Your task to perform on an android device: open chrome privacy settings Image 0: 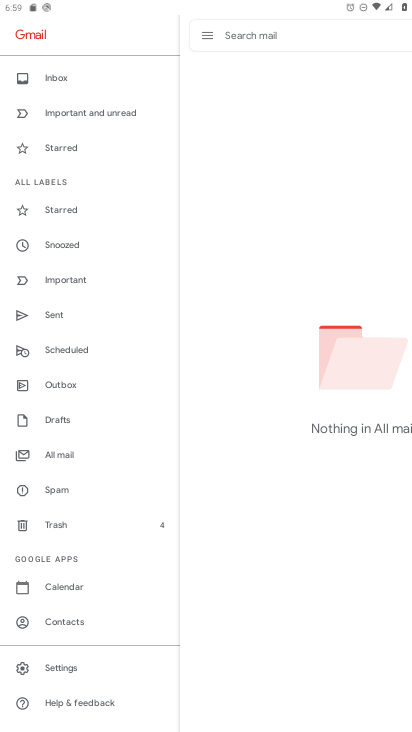
Step 0: press home button
Your task to perform on an android device: open chrome privacy settings Image 1: 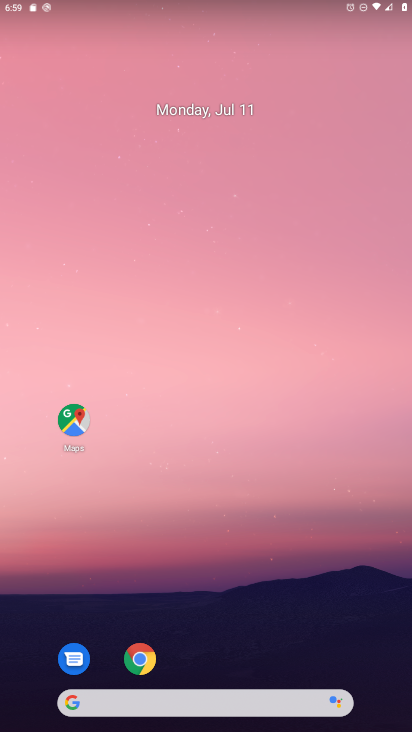
Step 1: click (141, 659)
Your task to perform on an android device: open chrome privacy settings Image 2: 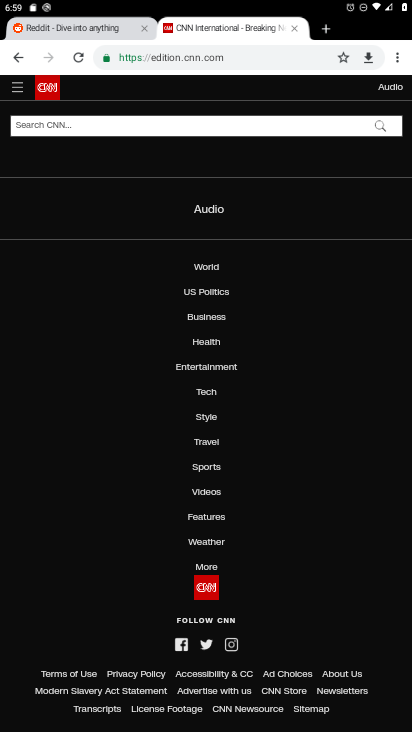
Step 2: click (398, 60)
Your task to perform on an android device: open chrome privacy settings Image 3: 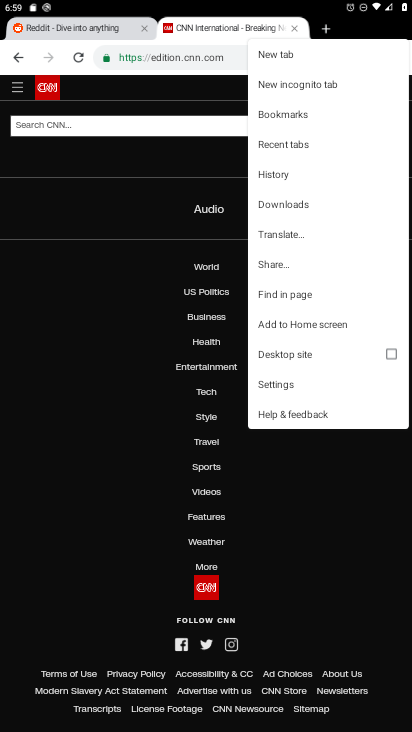
Step 3: click (280, 380)
Your task to perform on an android device: open chrome privacy settings Image 4: 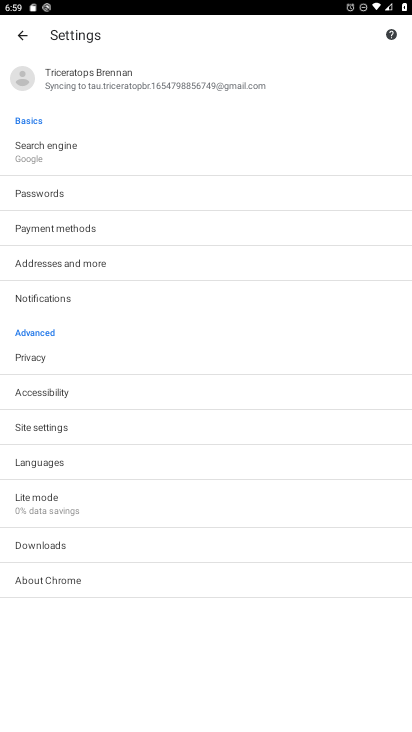
Step 4: click (29, 354)
Your task to perform on an android device: open chrome privacy settings Image 5: 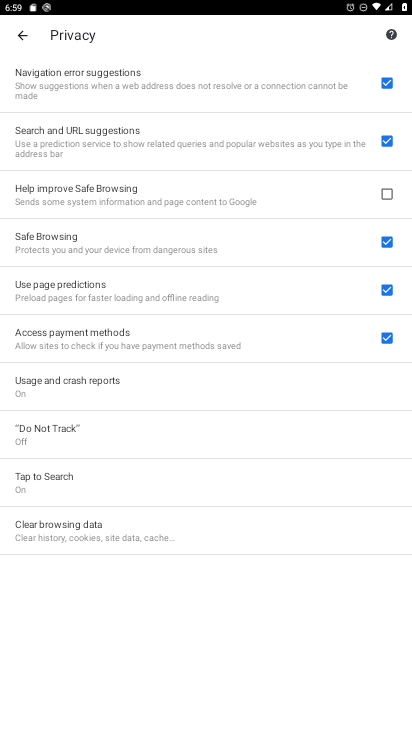
Step 5: task complete